Your task to perform on an android device: Go to wifi settings Image 0: 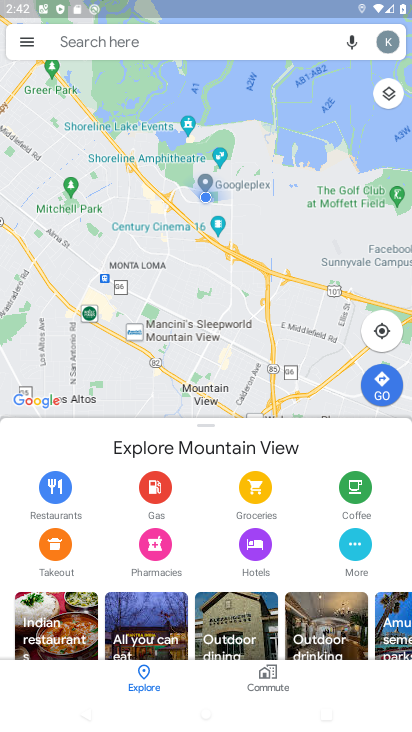
Step 0: press home button
Your task to perform on an android device: Go to wifi settings Image 1: 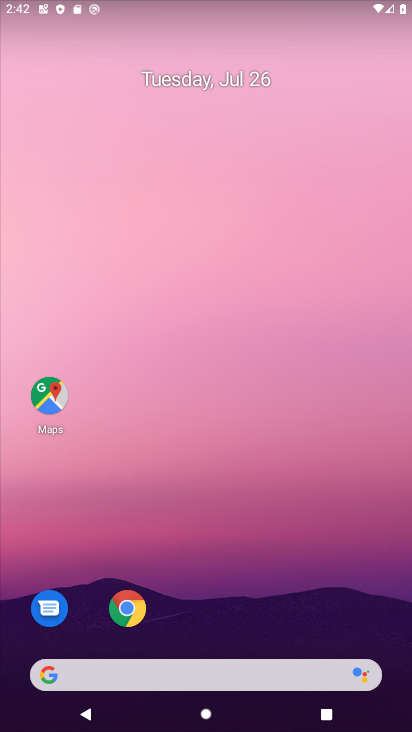
Step 1: drag from (233, 634) to (246, 0)
Your task to perform on an android device: Go to wifi settings Image 2: 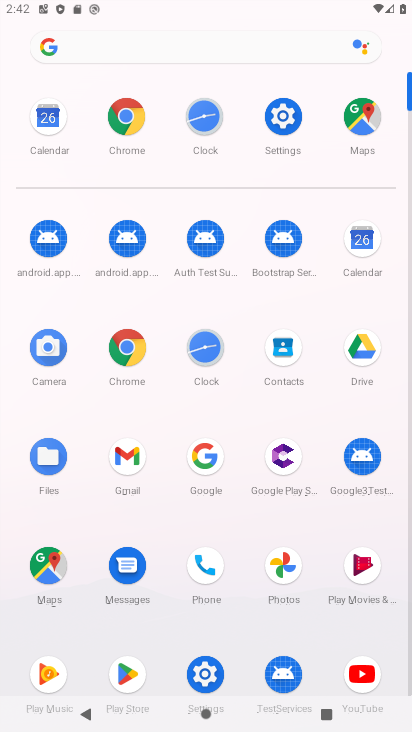
Step 2: click (228, 42)
Your task to perform on an android device: Go to wifi settings Image 3: 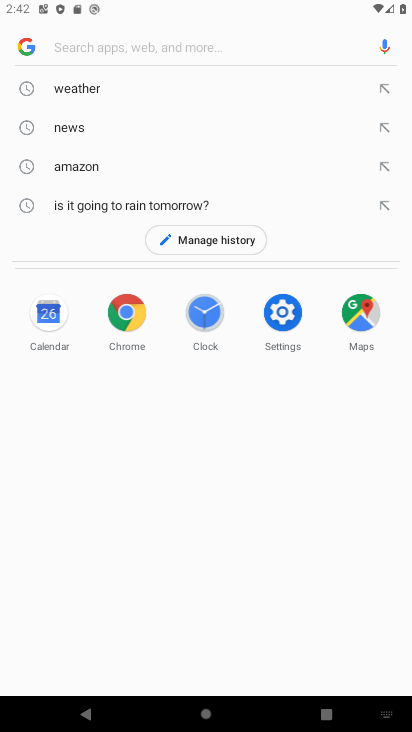
Step 3: type "wifi"
Your task to perform on an android device: Go to wifi settings Image 4: 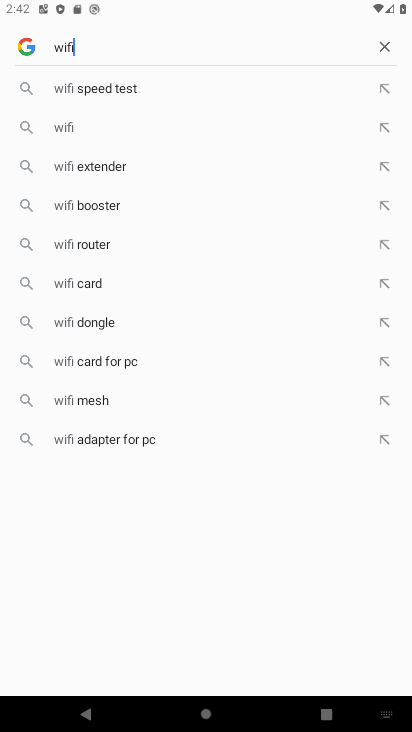
Step 4: click (78, 127)
Your task to perform on an android device: Go to wifi settings Image 5: 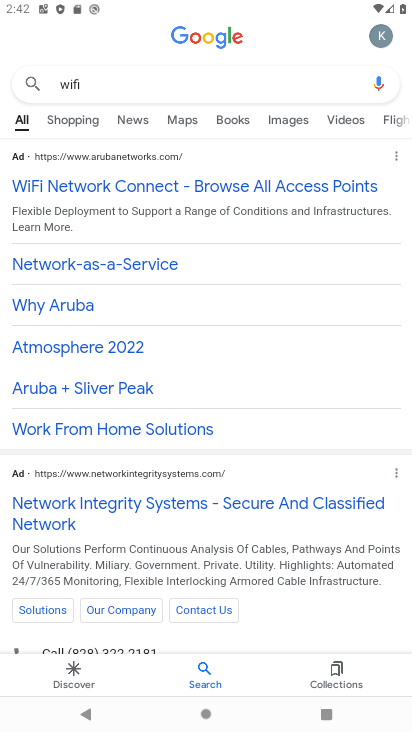
Step 5: task complete